Your task to perform on an android device: turn off picture-in-picture Image 0: 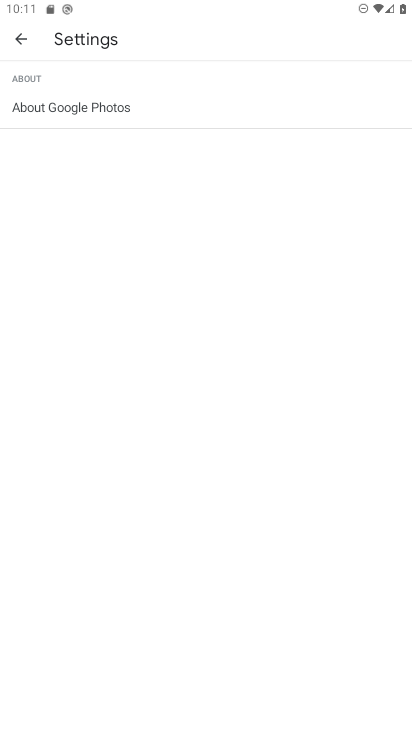
Step 0: press home button
Your task to perform on an android device: turn off picture-in-picture Image 1: 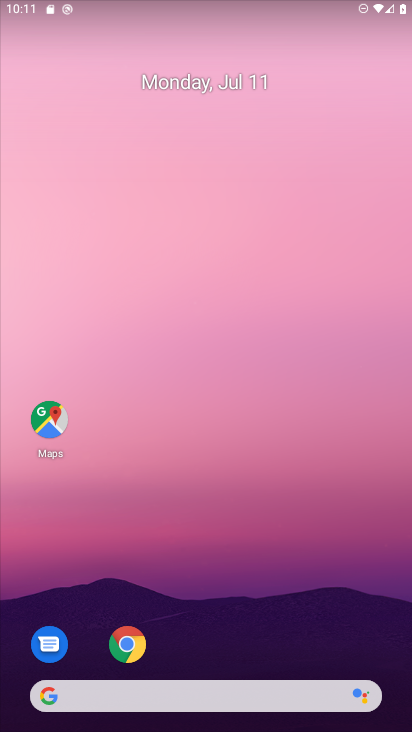
Step 1: click (118, 653)
Your task to perform on an android device: turn off picture-in-picture Image 2: 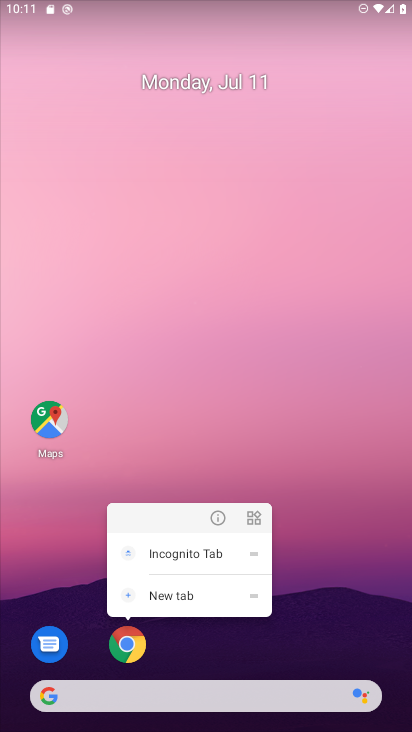
Step 2: click (221, 515)
Your task to perform on an android device: turn off picture-in-picture Image 3: 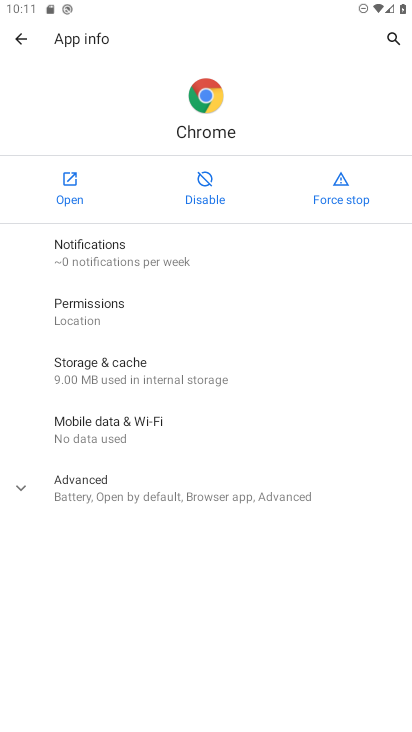
Step 3: click (62, 496)
Your task to perform on an android device: turn off picture-in-picture Image 4: 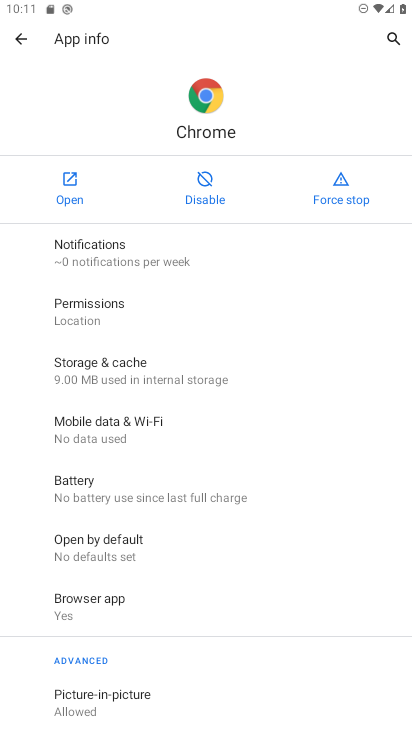
Step 4: task complete